Your task to perform on an android device: change text size in settings app Image 0: 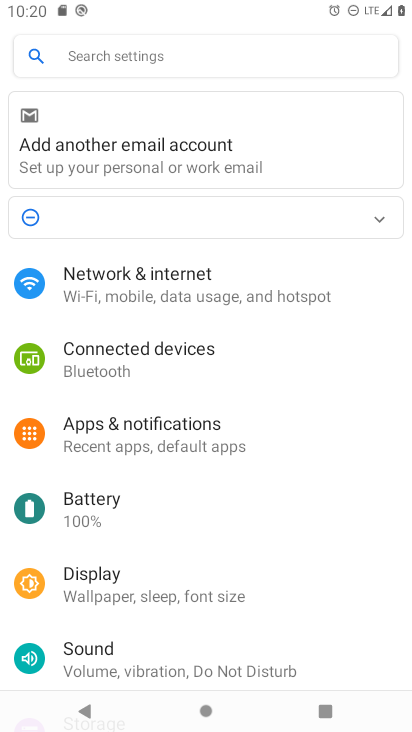
Step 0: press home button
Your task to perform on an android device: change text size in settings app Image 1: 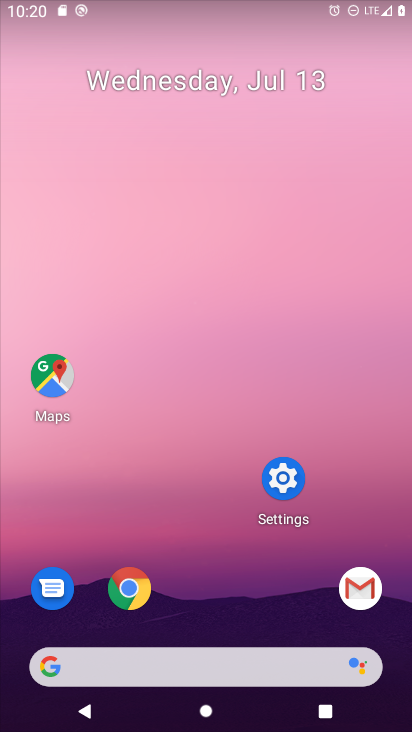
Step 1: click (291, 483)
Your task to perform on an android device: change text size in settings app Image 2: 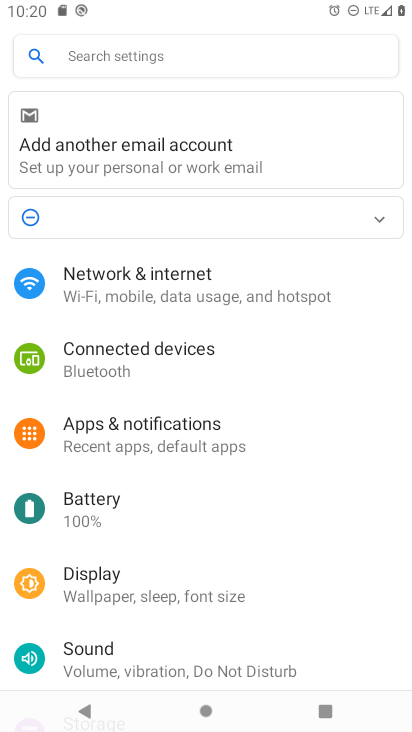
Step 2: click (96, 67)
Your task to perform on an android device: change text size in settings app Image 3: 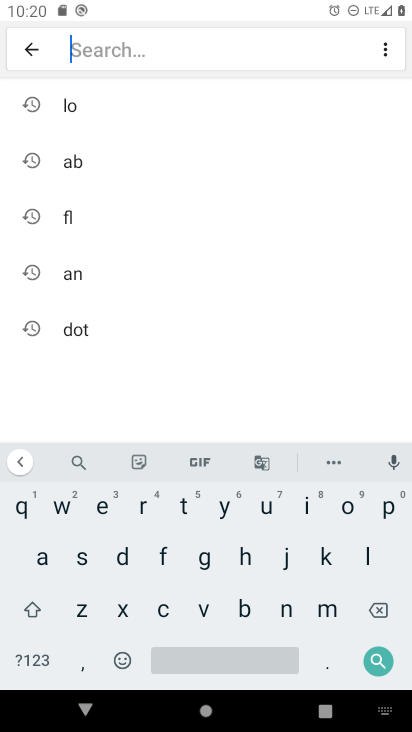
Step 3: click (79, 562)
Your task to perform on an android device: change text size in settings app Image 4: 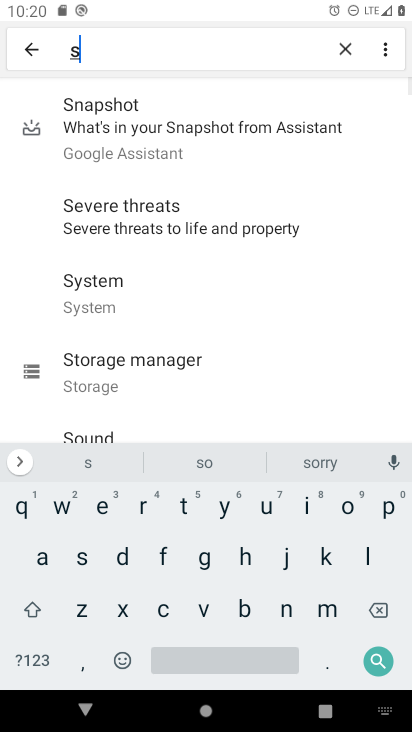
Step 4: click (307, 512)
Your task to perform on an android device: change text size in settings app Image 5: 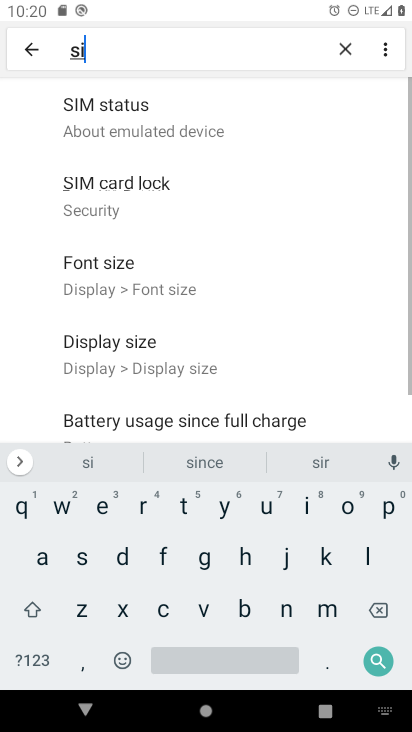
Step 5: click (86, 608)
Your task to perform on an android device: change text size in settings app Image 6: 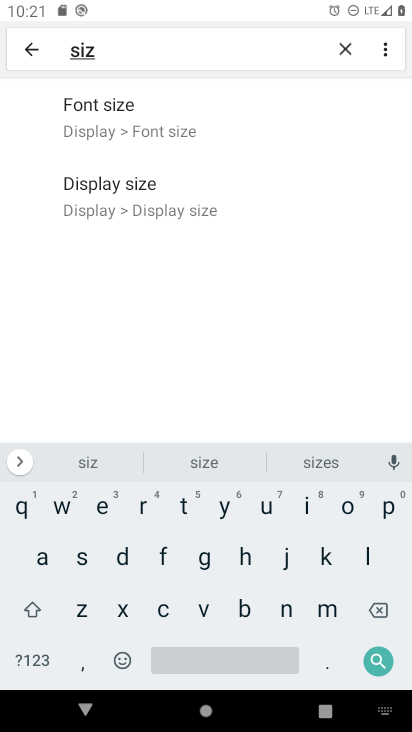
Step 6: click (135, 119)
Your task to perform on an android device: change text size in settings app Image 7: 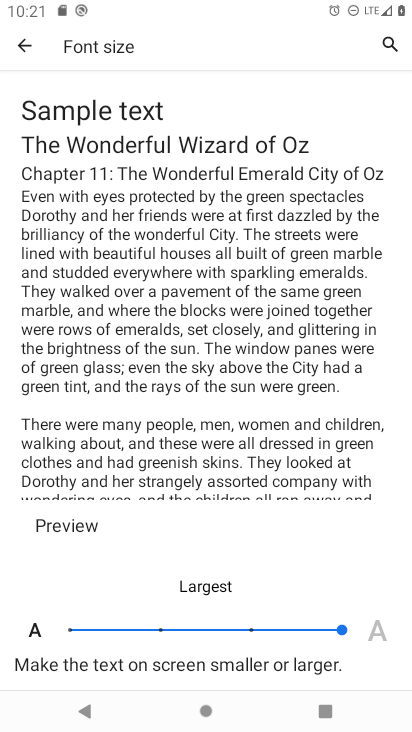
Step 7: click (255, 624)
Your task to perform on an android device: change text size in settings app Image 8: 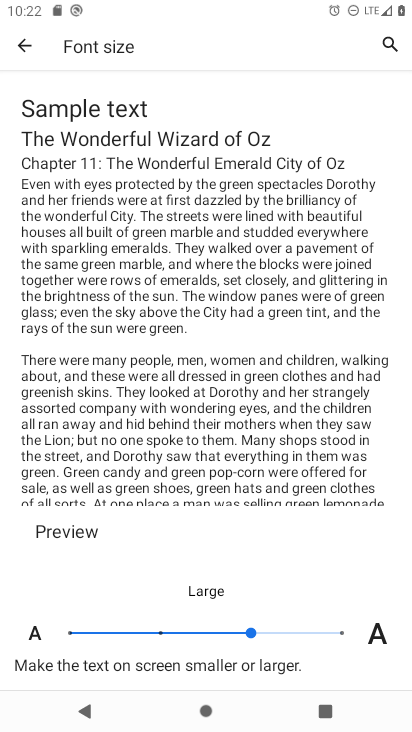
Step 8: task complete